Your task to perform on an android device: turn on improve location accuracy Image 0: 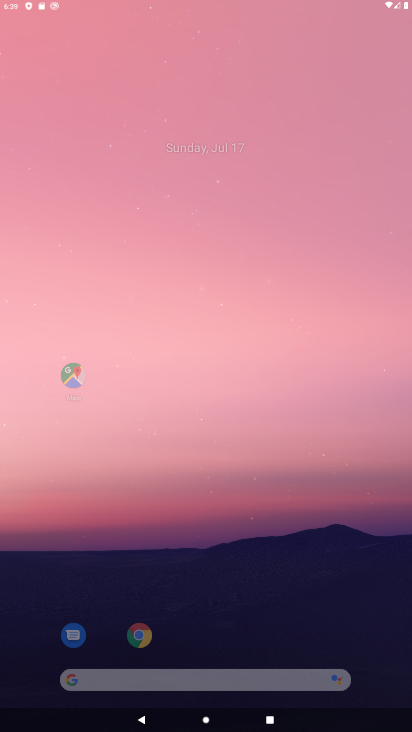
Step 0: drag from (242, 481) to (178, 59)
Your task to perform on an android device: turn on improve location accuracy Image 1: 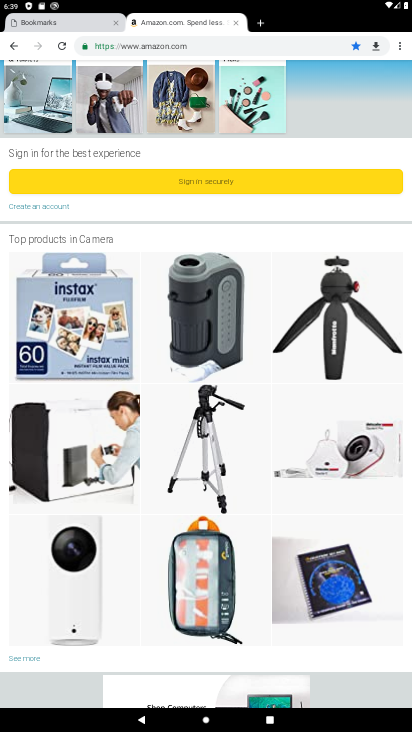
Step 1: press home button
Your task to perform on an android device: turn on improve location accuracy Image 2: 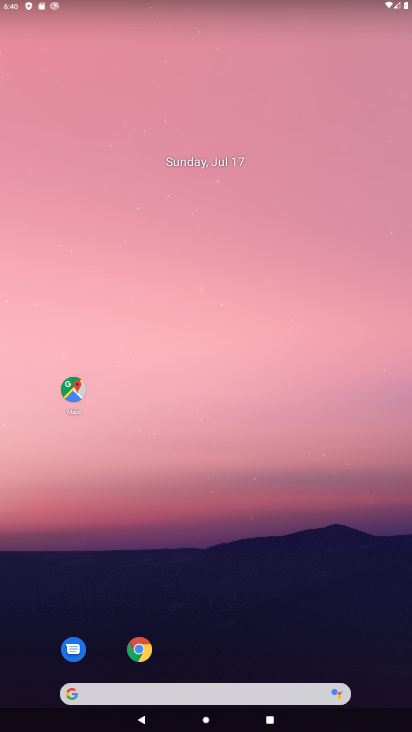
Step 2: drag from (226, 619) to (213, 208)
Your task to perform on an android device: turn on improve location accuracy Image 3: 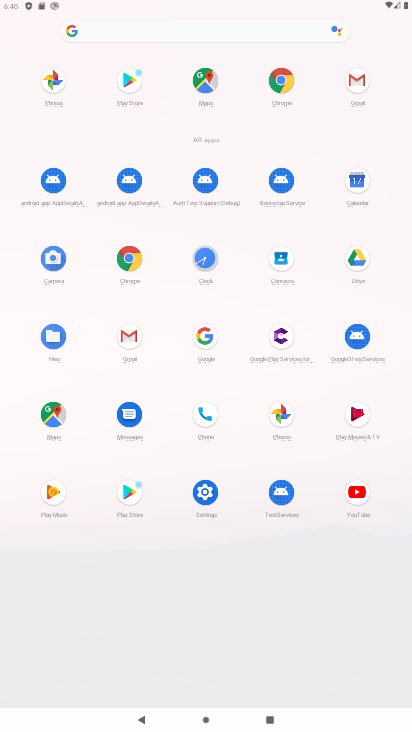
Step 3: click (204, 494)
Your task to perform on an android device: turn on improve location accuracy Image 4: 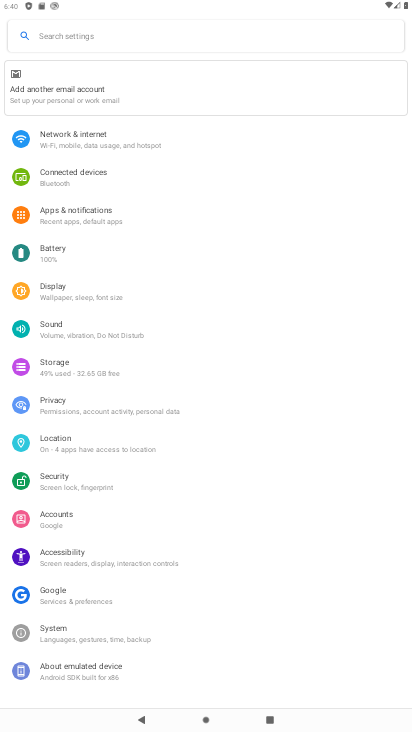
Step 4: click (54, 445)
Your task to perform on an android device: turn on improve location accuracy Image 5: 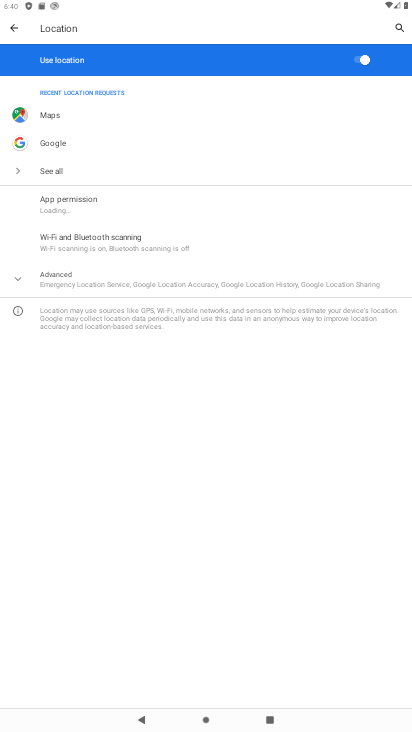
Step 5: click (11, 280)
Your task to perform on an android device: turn on improve location accuracy Image 6: 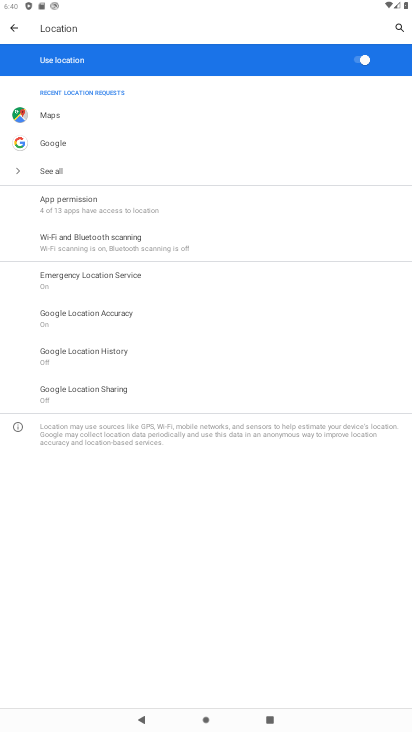
Step 6: click (92, 306)
Your task to perform on an android device: turn on improve location accuracy Image 7: 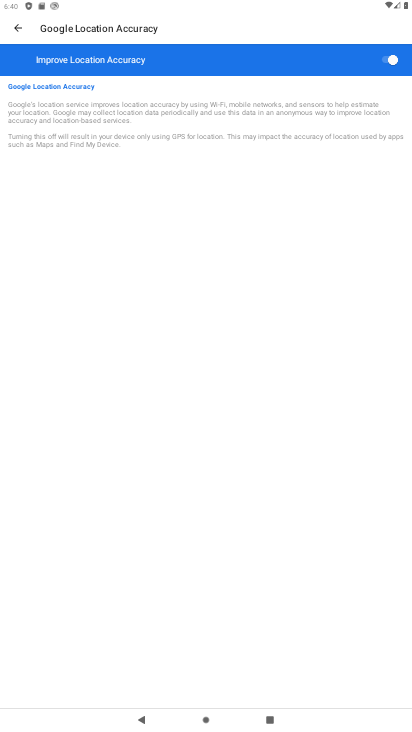
Step 7: task complete